Your task to perform on an android device: Check the news Image 0: 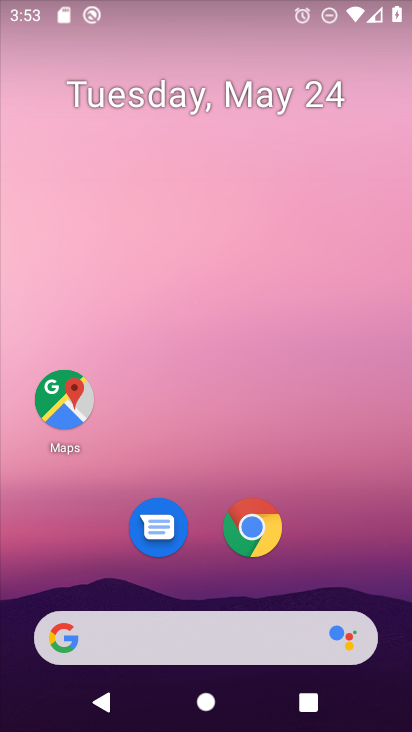
Step 0: click (167, 626)
Your task to perform on an android device: Check the news Image 1: 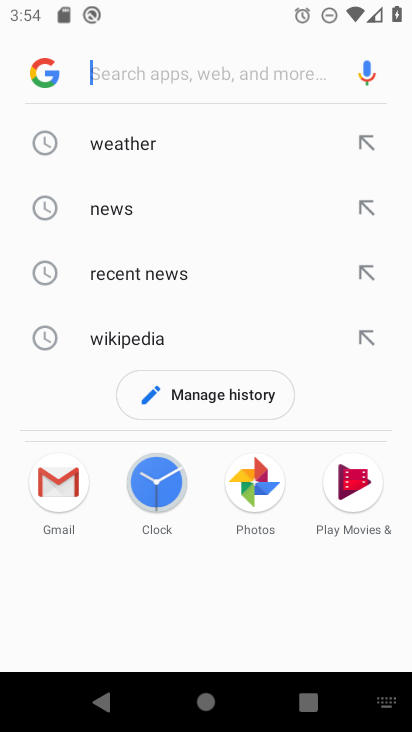
Step 1: click (110, 219)
Your task to perform on an android device: Check the news Image 2: 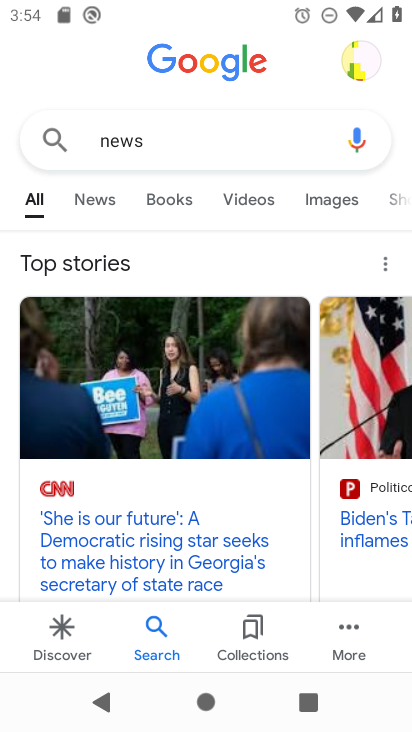
Step 2: task complete